Your task to perform on an android device: Open network settings Image 0: 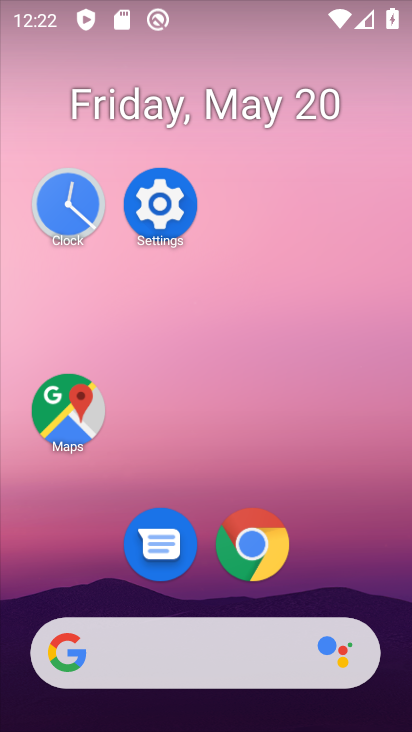
Step 0: click (173, 204)
Your task to perform on an android device: Open network settings Image 1: 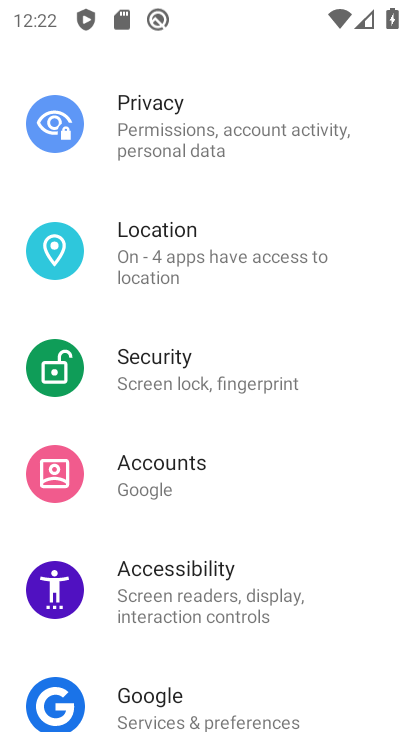
Step 1: drag from (319, 197) to (282, 609)
Your task to perform on an android device: Open network settings Image 2: 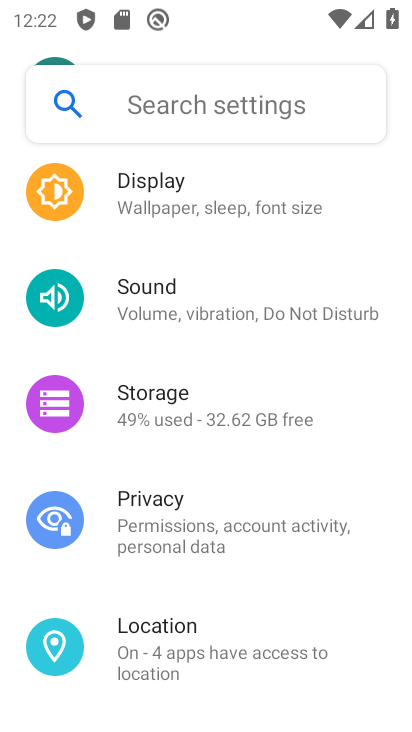
Step 2: drag from (294, 165) to (287, 723)
Your task to perform on an android device: Open network settings Image 3: 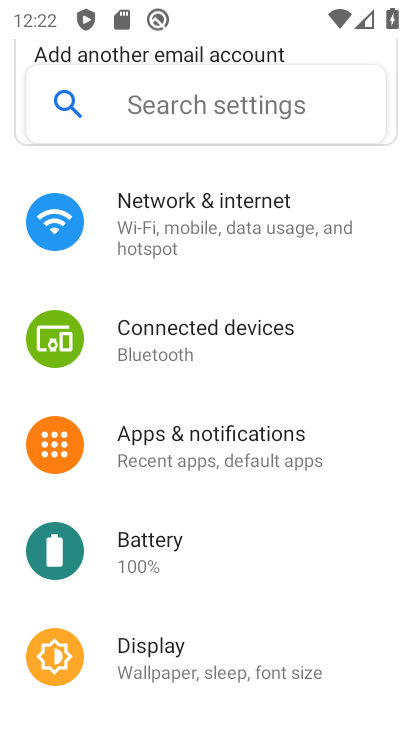
Step 3: click (245, 230)
Your task to perform on an android device: Open network settings Image 4: 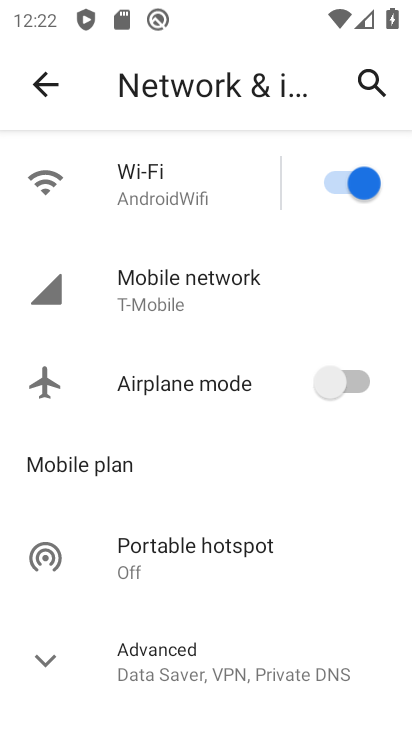
Step 4: task complete